Your task to perform on an android device: Is it going to rain tomorrow? Image 0: 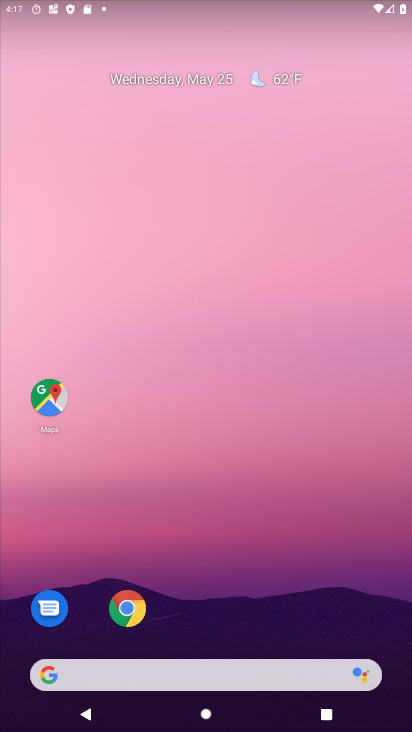
Step 0: drag from (246, 556) to (198, 145)
Your task to perform on an android device: Is it going to rain tomorrow? Image 1: 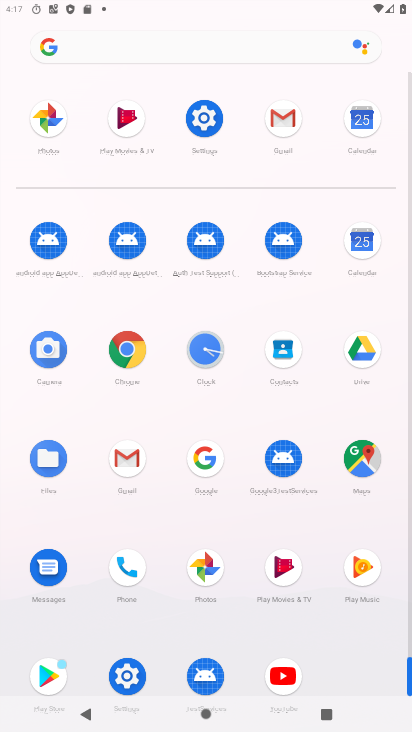
Step 1: click (204, 456)
Your task to perform on an android device: Is it going to rain tomorrow? Image 2: 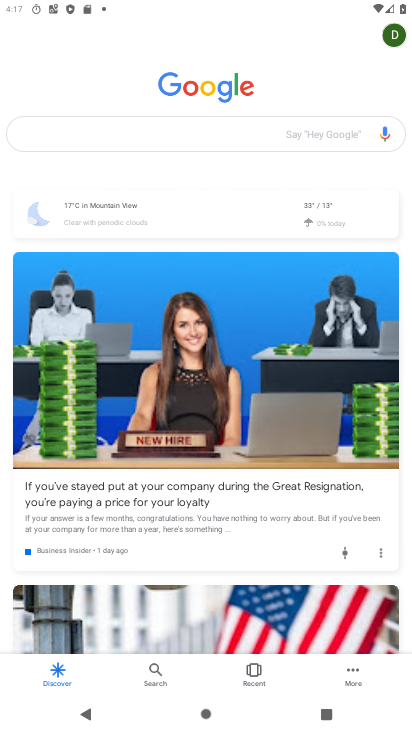
Step 2: click (206, 128)
Your task to perform on an android device: Is it going to rain tomorrow? Image 3: 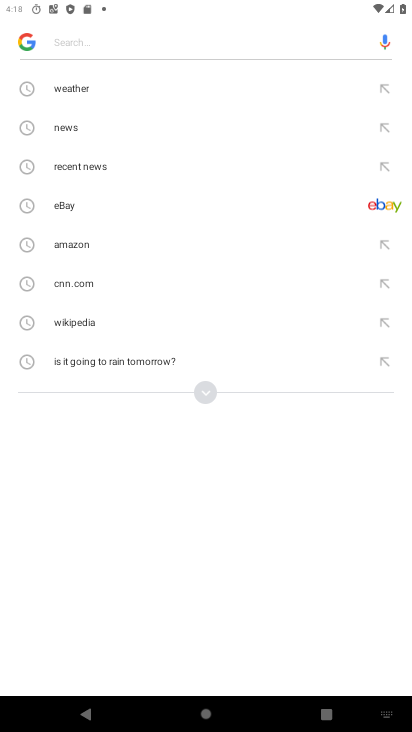
Step 3: type "Is it going to rain tomorrow"
Your task to perform on an android device: Is it going to rain tomorrow? Image 4: 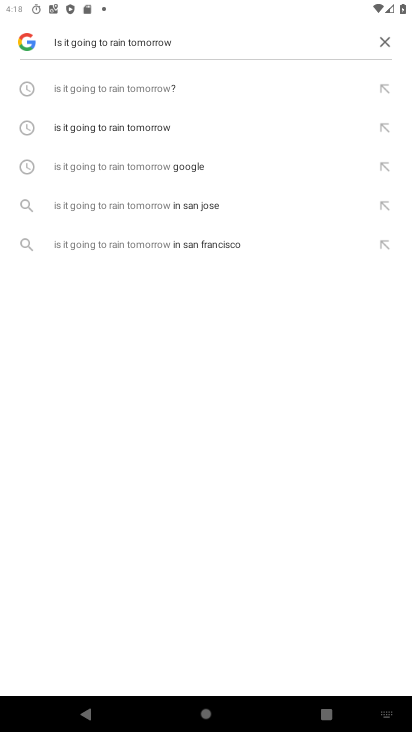
Step 4: click (124, 89)
Your task to perform on an android device: Is it going to rain tomorrow? Image 5: 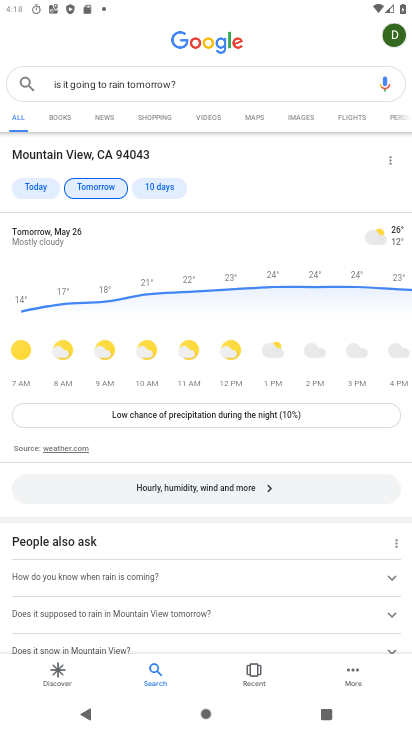
Step 5: task complete